Your task to perform on an android device: make emails show in primary in the gmail app Image 0: 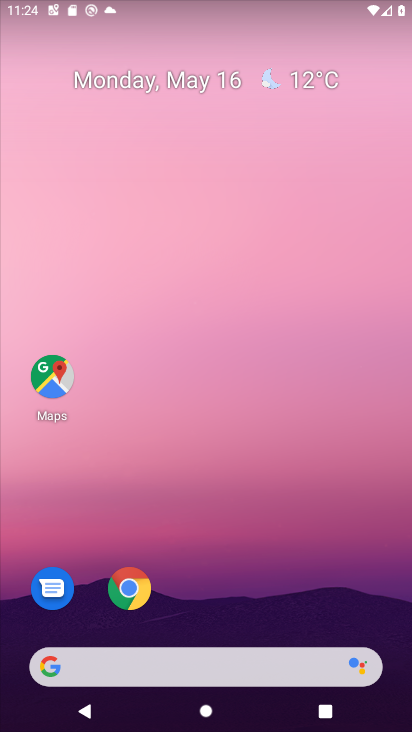
Step 0: click (223, 50)
Your task to perform on an android device: make emails show in primary in the gmail app Image 1: 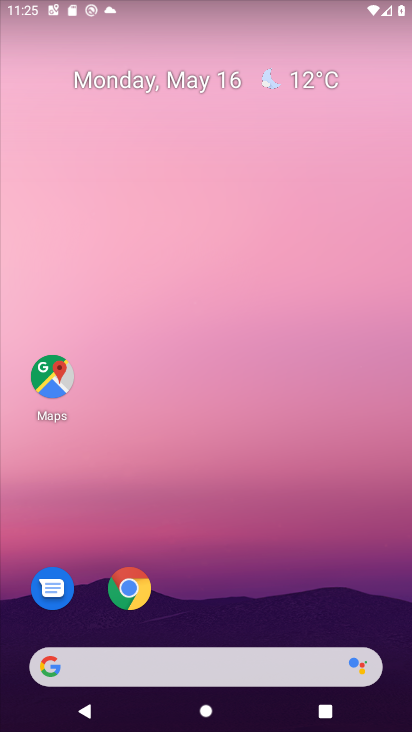
Step 1: drag from (228, 630) to (230, 22)
Your task to perform on an android device: make emails show in primary in the gmail app Image 2: 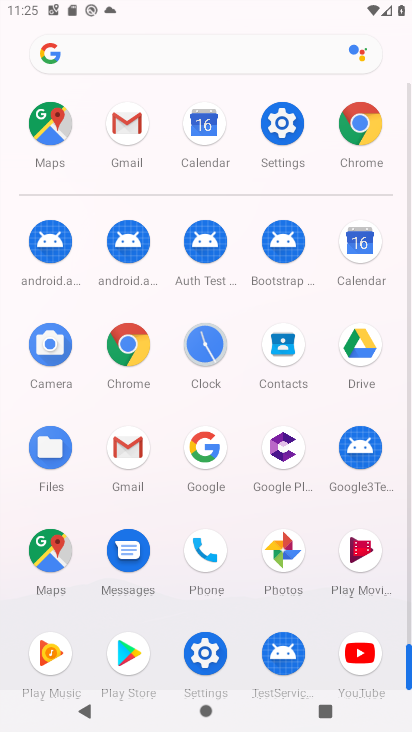
Step 2: click (126, 115)
Your task to perform on an android device: make emails show in primary in the gmail app Image 3: 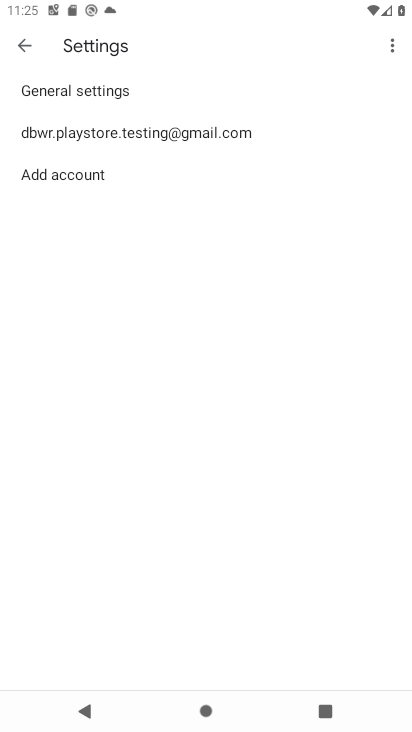
Step 3: click (262, 133)
Your task to perform on an android device: make emails show in primary in the gmail app Image 4: 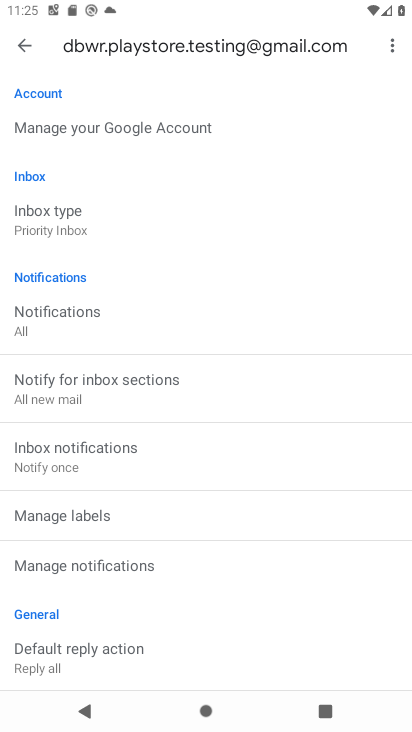
Step 4: click (104, 216)
Your task to perform on an android device: make emails show in primary in the gmail app Image 5: 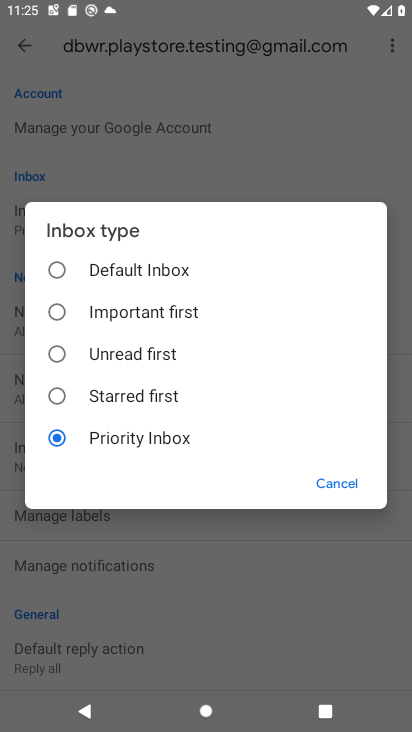
Step 5: click (56, 262)
Your task to perform on an android device: make emails show in primary in the gmail app Image 6: 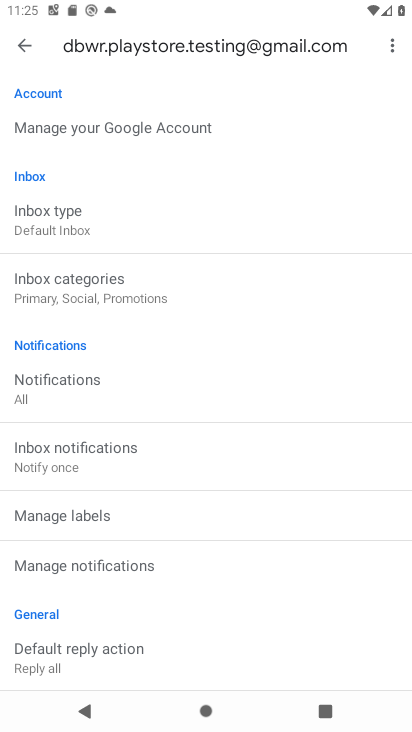
Step 6: task complete